Your task to perform on an android device: install app "Airtel Thanks" Image 0: 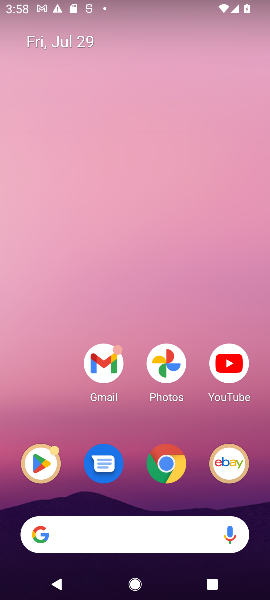
Step 0: drag from (90, 546) to (141, 49)
Your task to perform on an android device: install app "Airtel Thanks" Image 1: 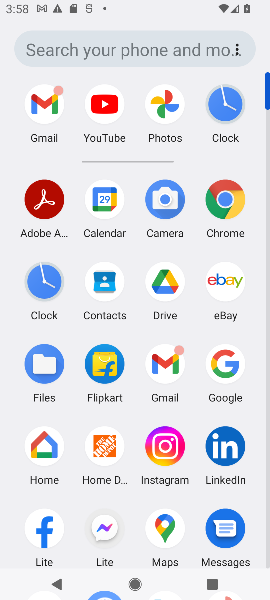
Step 1: drag from (138, 441) to (161, 182)
Your task to perform on an android device: install app "Airtel Thanks" Image 2: 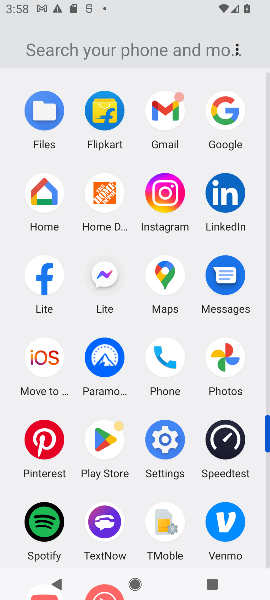
Step 2: click (108, 438)
Your task to perform on an android device: install app "Airtel Thanks" Image 3: 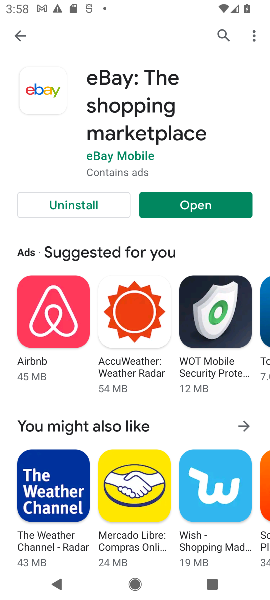
Step 3: click (223, 36)
Your task to perform on an android device: install app "Airtel Thanks" Image 4: 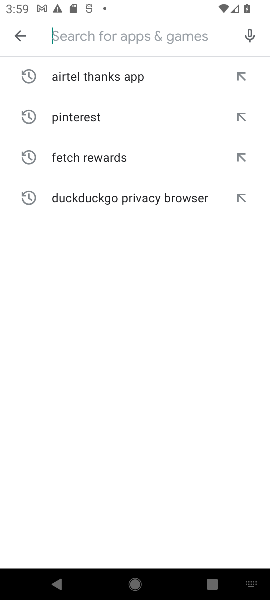
Step 4: type "Airtel Thanks"
Your task to perform on an android device: install app "Airtel Thanks" Image 5: 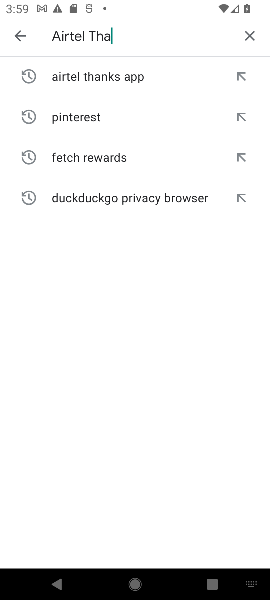
Step 5: type ""
Your task to perform on an android device: install app "Airtel Thanks" Image 6: 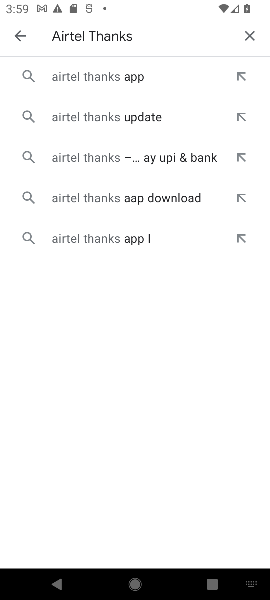
Step 6: click (113, 76)
Your task to perform on an android device: install app "Airtel Thanks" Image 7: 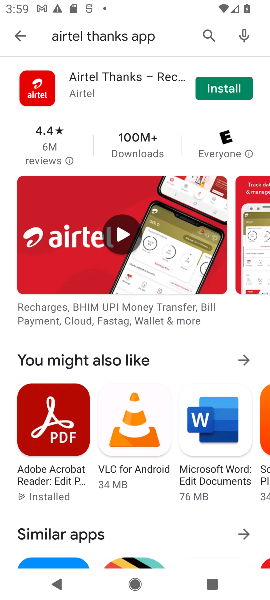
Step 7: click (231, 90)
Your task to perform on an android device: install app "Airtel Thanks" Image 8: 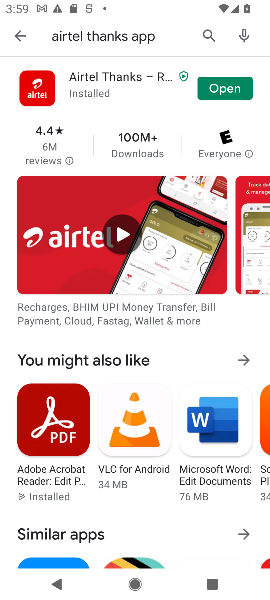
Step 8: task complete